Your task to perform on an android device: add a contact in the contacts app Image 0: 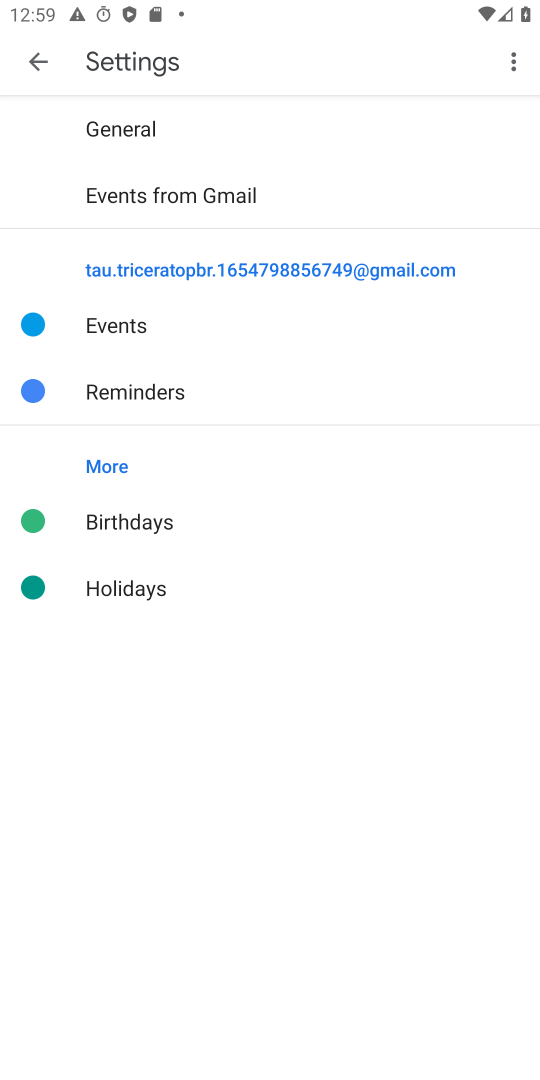
Step 0: press home button
Your task to perform on an android device: add a contact in the contacts app Image 1: 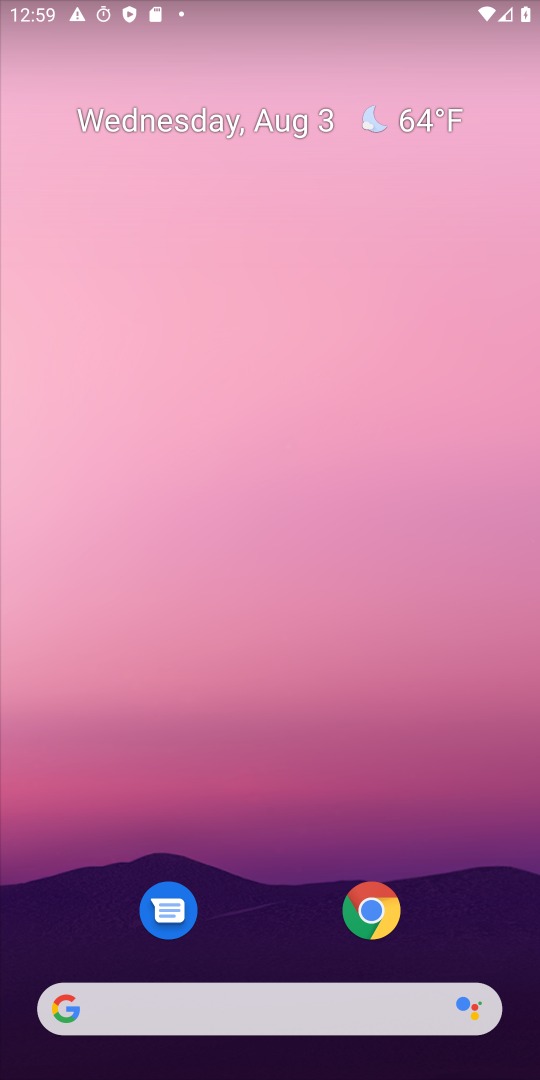
Step 1: drag from (350, 990) to (489, 9)
Your task to perform on an android device: add a contact in the contacts app Image 2: 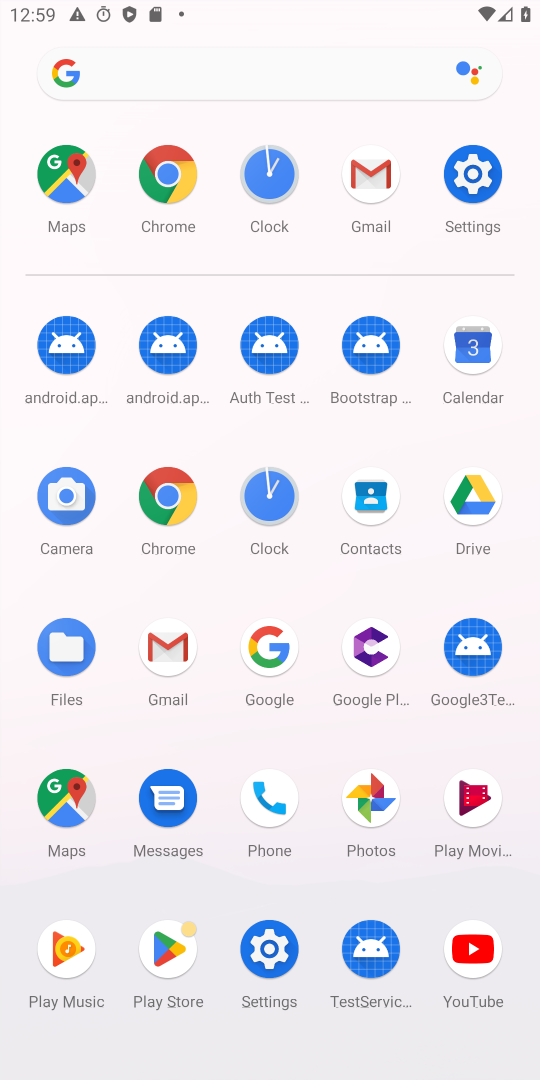
Step 2: click (362, 494)
Your task to perform on an android device: add a contact in the contacts app Image 3: 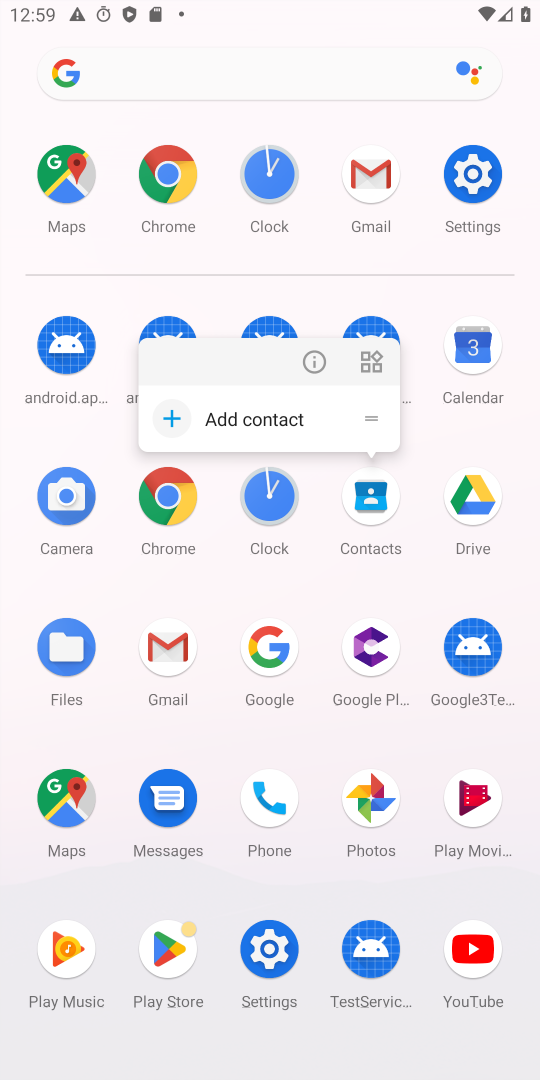
Step 3: click (362, 494)
Your task to perform on an android device: add a contact in the contacts app Image 4: 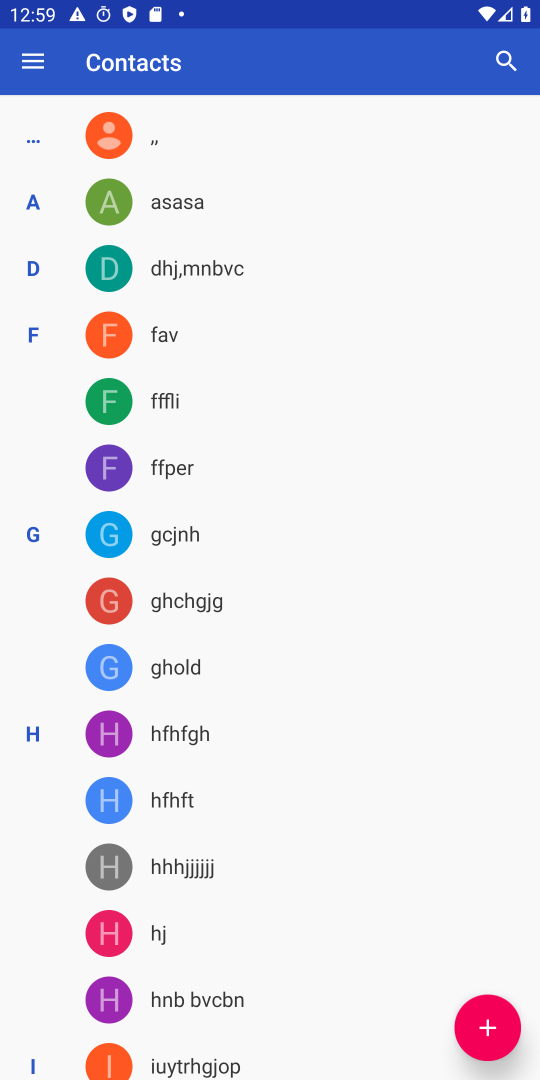
Step 4: click (475, 1017)
Your task to perform on an android device: add a contact in the contacts app Image 5: 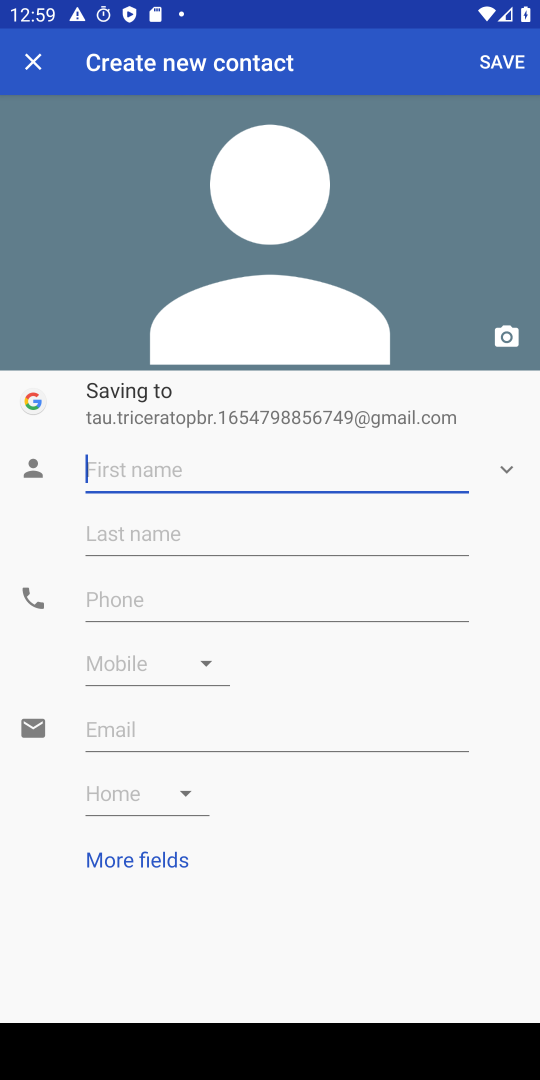
Step 5: type "fhgffj"
Your task to perform on an android device: add a contact in the contacts app Image 6: 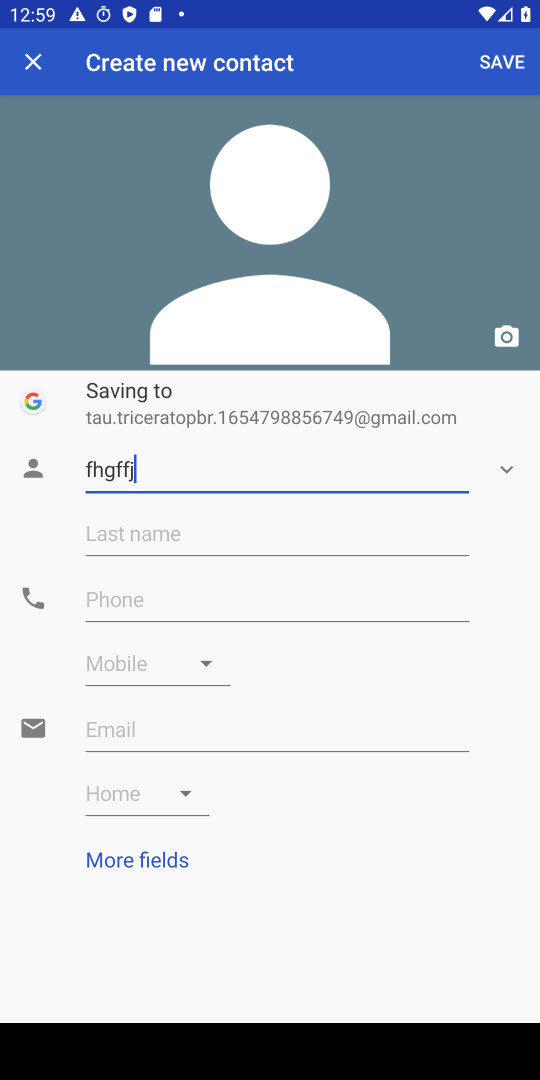
Step 6: click (259, 607)
Your task to perform on an android device: add a contact in the contacts app Image 7: 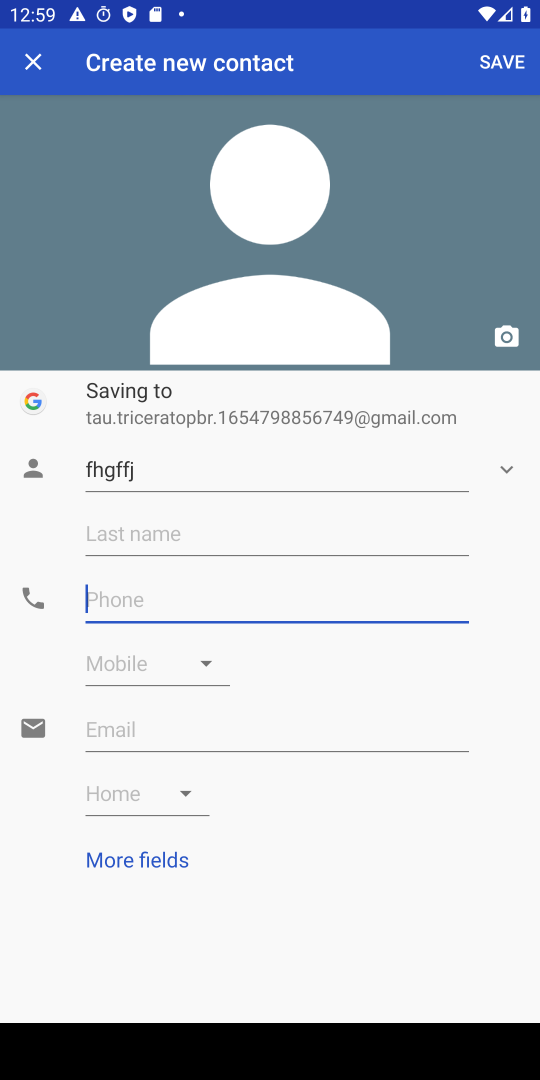
Step 7: type "9457678976"
Your task to perform on an android device: add a contact in the contacts app Image 8: 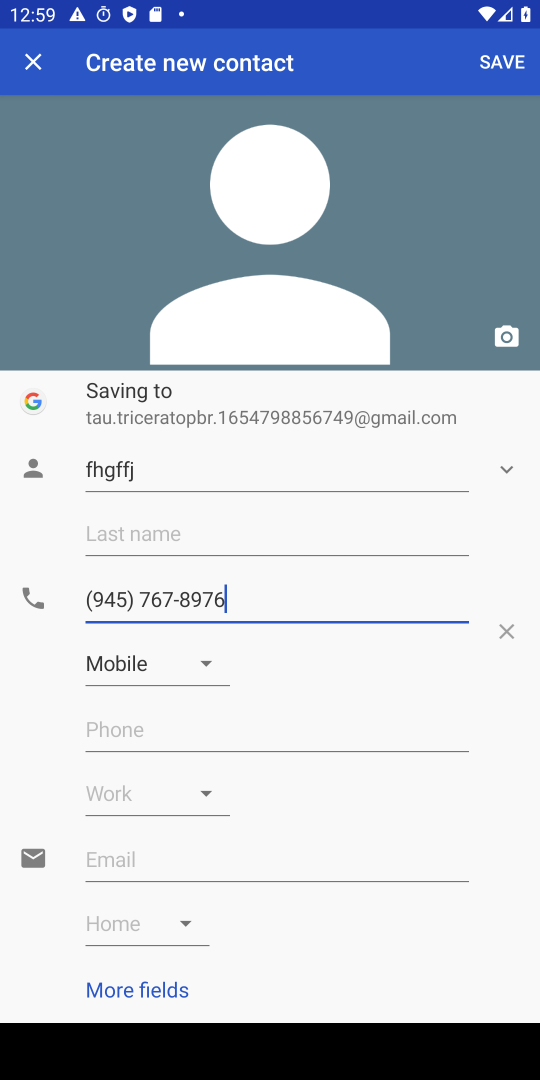
Step 8: click (510, 62)
Your task to perform on an android device: add a contact in the contacts app Image 9: 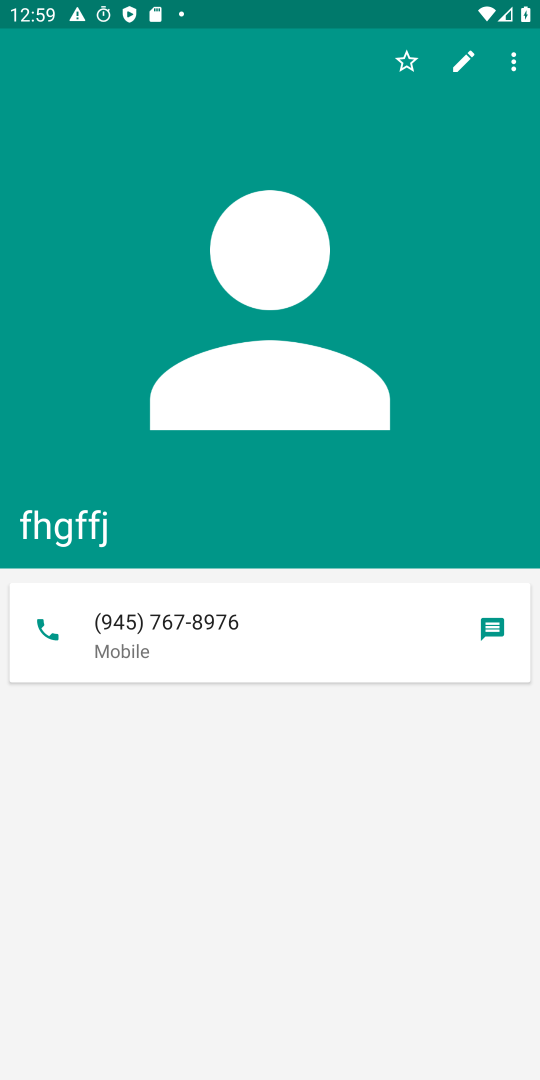
Step 9: task complete